Your task to perform on an android device: Go to network settings Image 0: 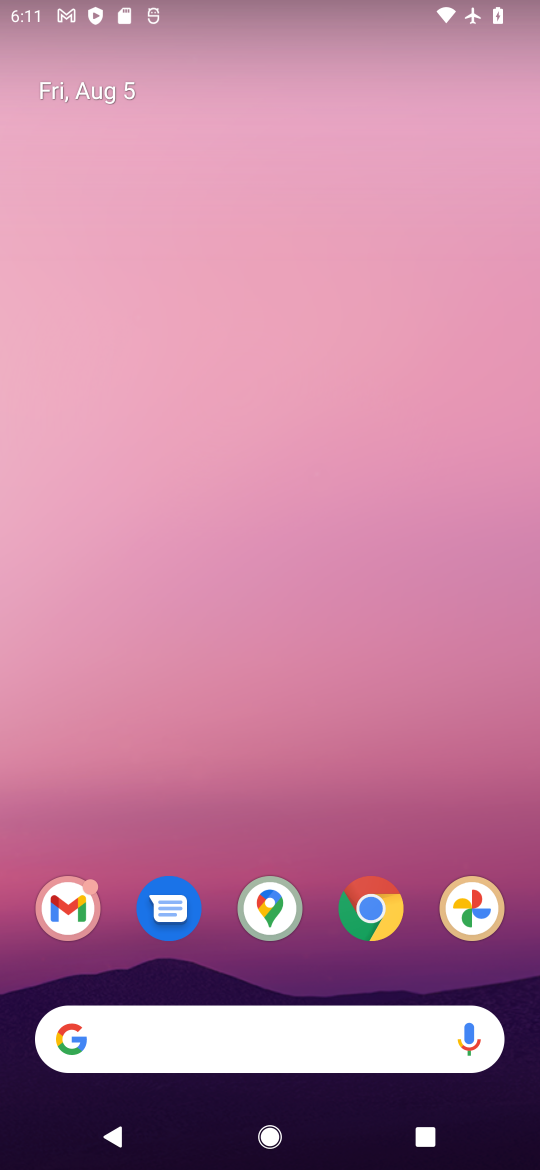
Step 0: drag from (279, 846) to (321, 330)
Your task to perform on an android device: Go to network settings Image 1: 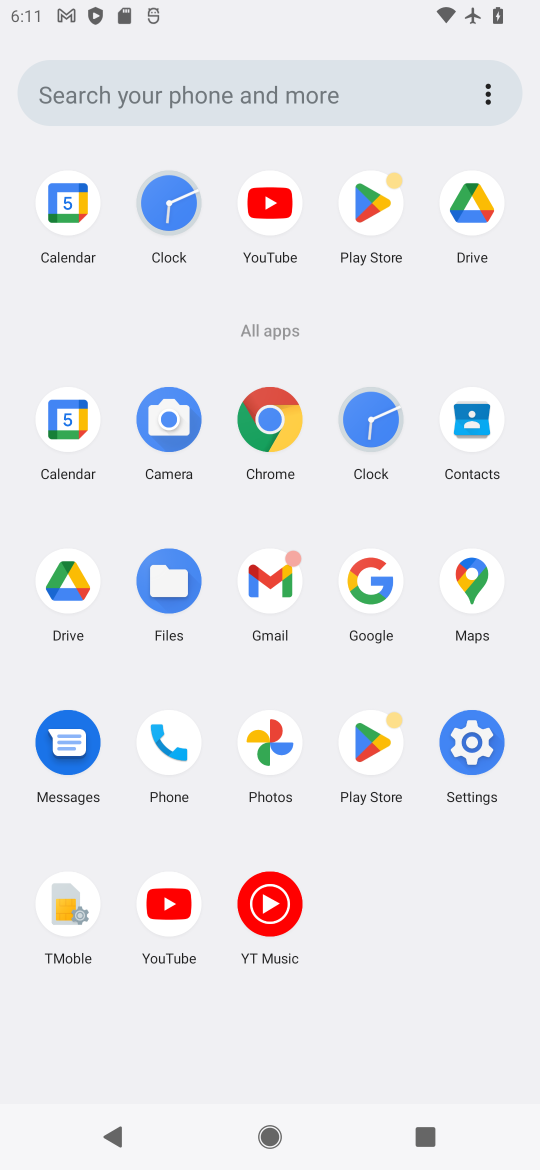
Step 1: click (475, 760)
Your task to perform on an android device: Go to network settings Image 2: 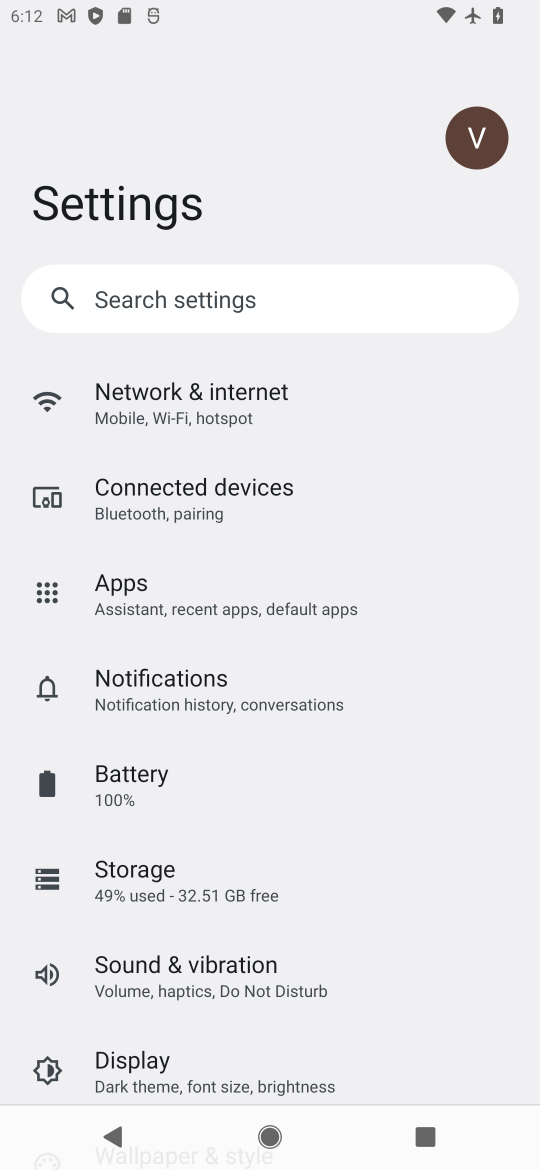
Step 2: click (162, 416)
Your task to perform on an android device: Go to network settings Image 3: 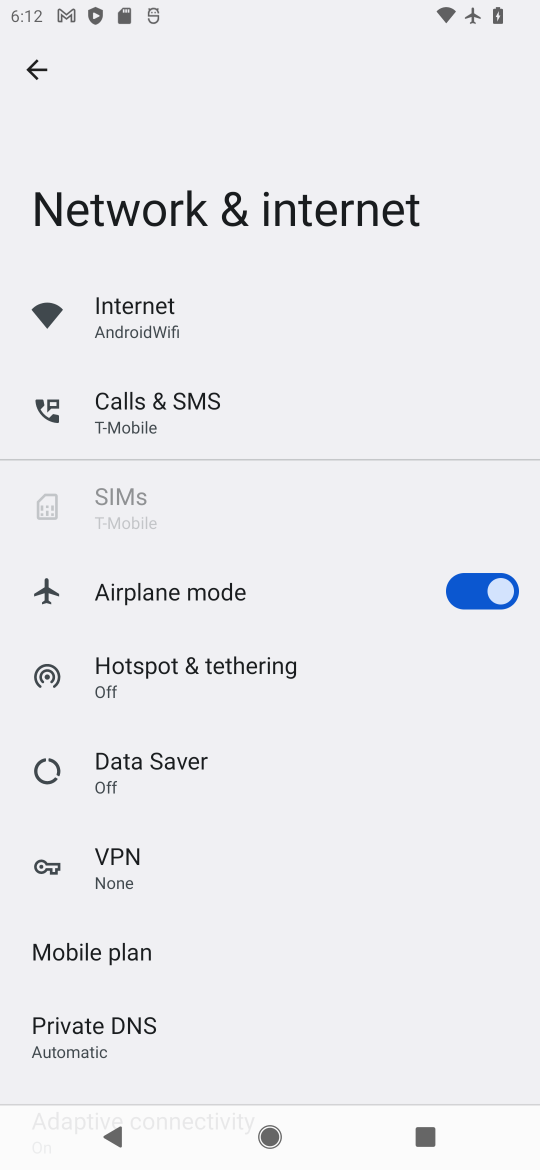
Step 3: task complete